Your task to perform on an android device: Open settings on Google Maps Image 0: 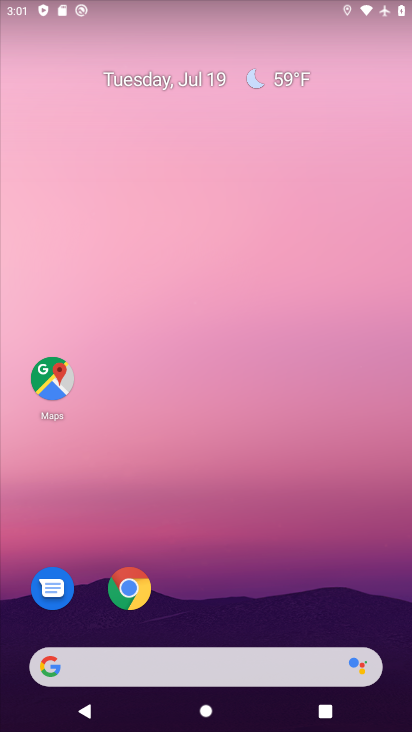
Step 0: drag from (230, 633) to (322, 90)
Your task to perform on an android device: Open settings on Google Maps Image 1: 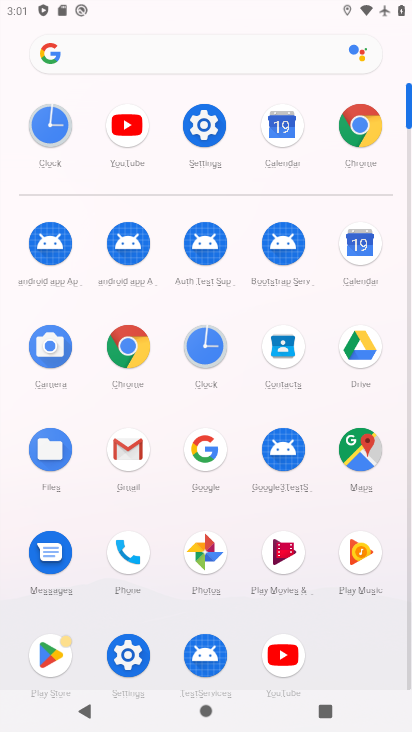
Step 1: click (361, 450)
Your task to perform on an android device: Open settings on Google Maps Image 2: 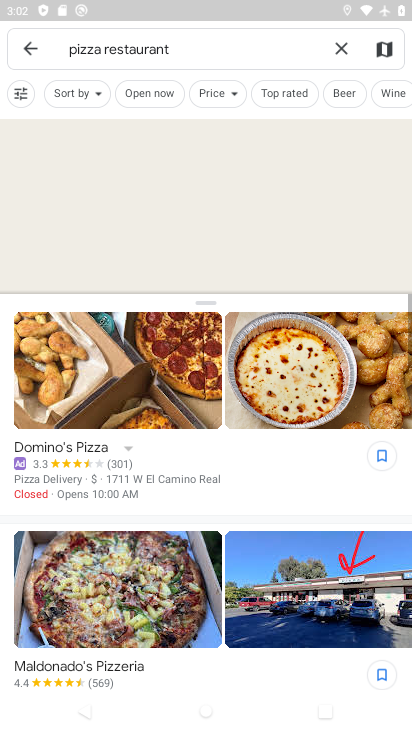
Step 2: click (30, 45)
Your task to perform on an android device: Open settings on Google Maps Image 3: 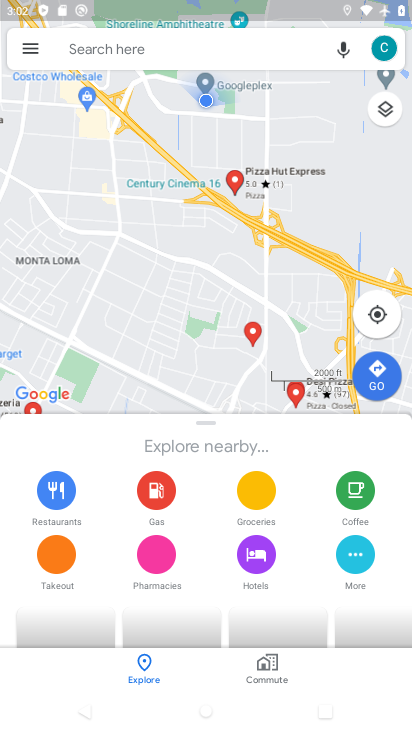
Step 3: click (36, 52)
Your task to perform on an android device: Open settings on Google Maps Image 4: 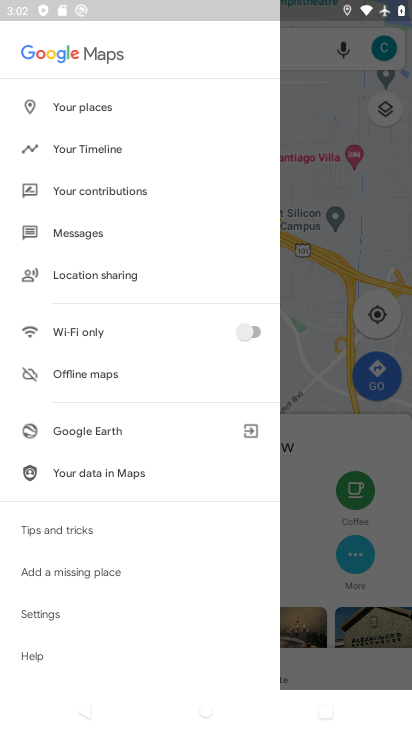
Step 4: click (42, 621)
Your task to perform on an android device: Open settings on Google Maps Image 5: 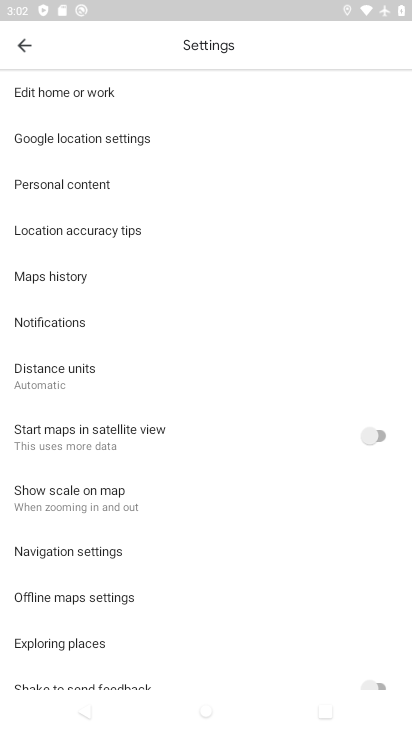
Step 5: task complete